Your task to perform on an android device: set the timer Image 0: 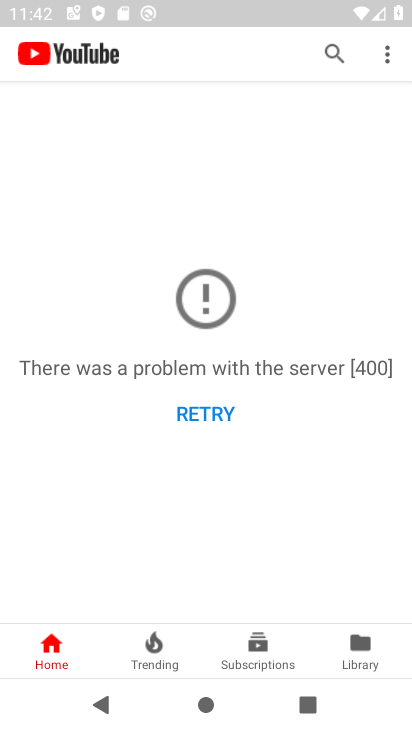
Step 0: press home button
Your task to perform on an android device: set the timer Image 1: 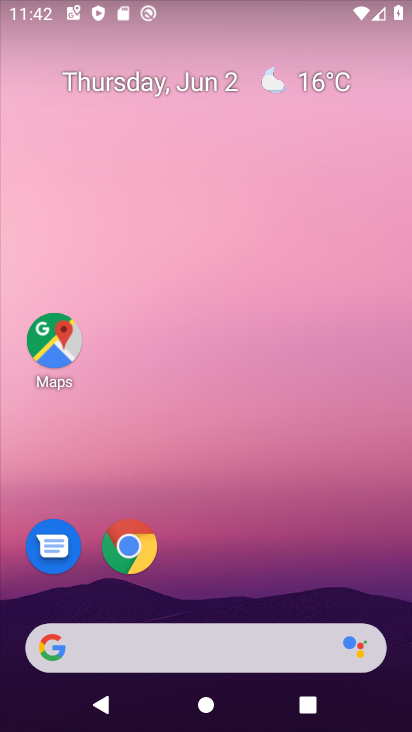
Step 1: drag from (267, 497) to (208, 110)
Your task to perform on an android device: set the timer Image 2: 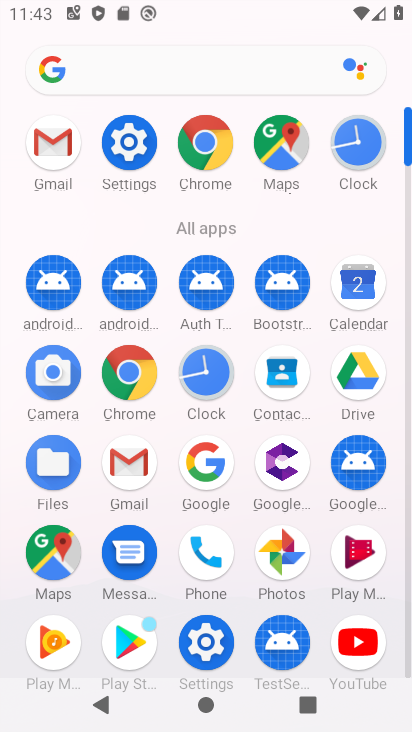
Step 2: click (351, 141)
Your task to perform on an android device: set the timer Image 3: 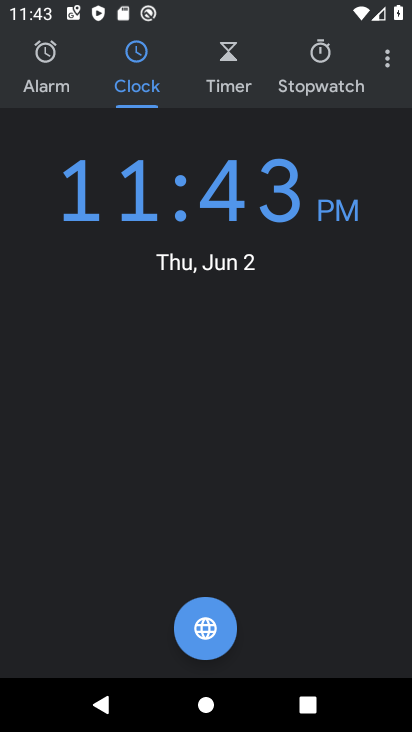
Step 3: click (220, 69)
Your task to perform on an android device: set the timer Image 4: 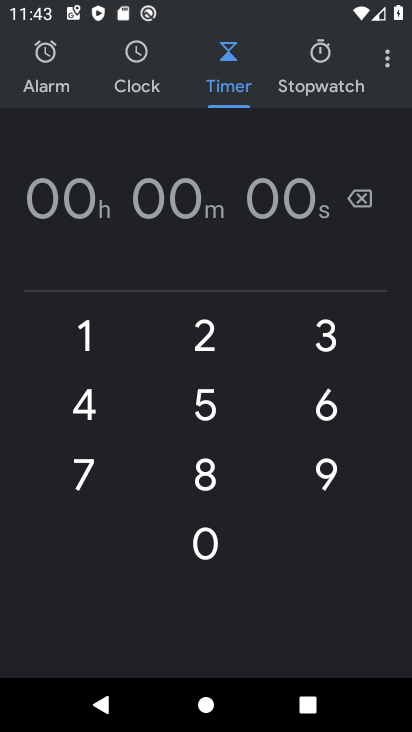
Step 4: click (224, 56)
Your task to perform on an android device: set the timer Image 5: 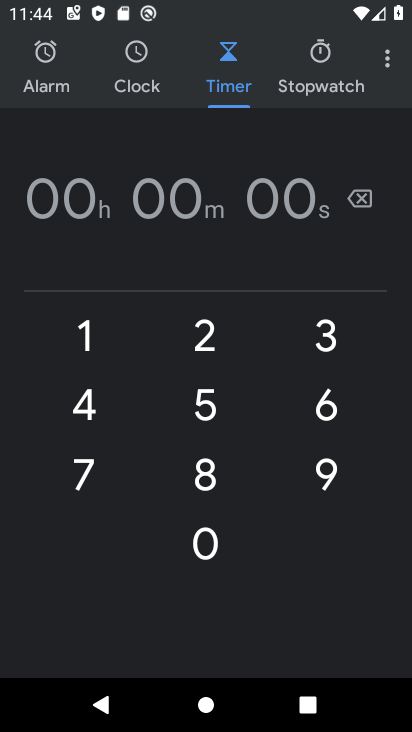
Step 5: task complete